Your task to perform on an android device: Open privacy settings Image 0: 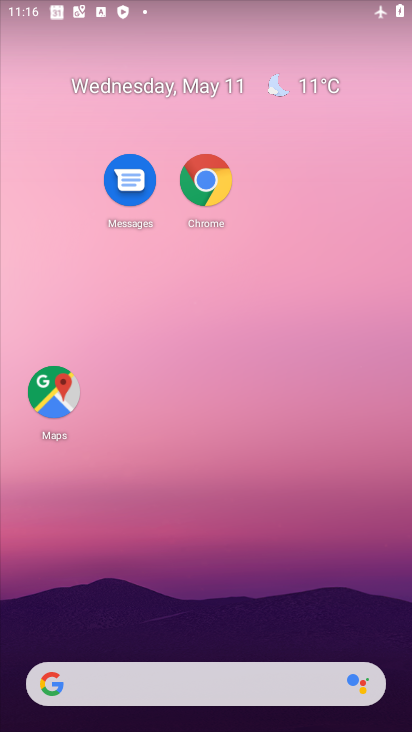
Step 0: drag from (258, 592) to (326, 138)
Your task to perform on an android device: Open privacy settings Image 1: 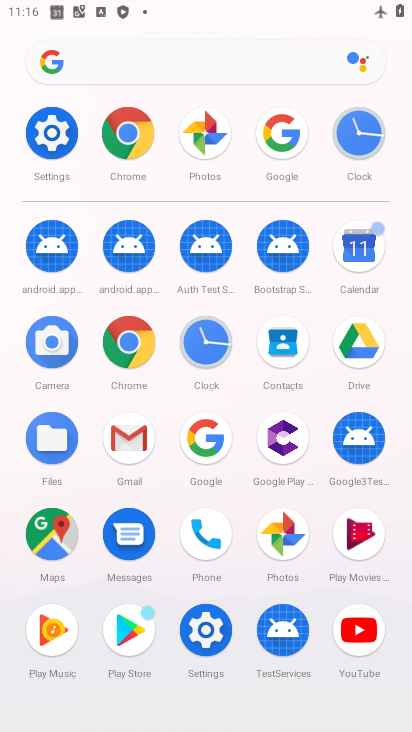
Step 1: click (49, 146)
Your task to perform on an android device: Open privacy settings Image 2: 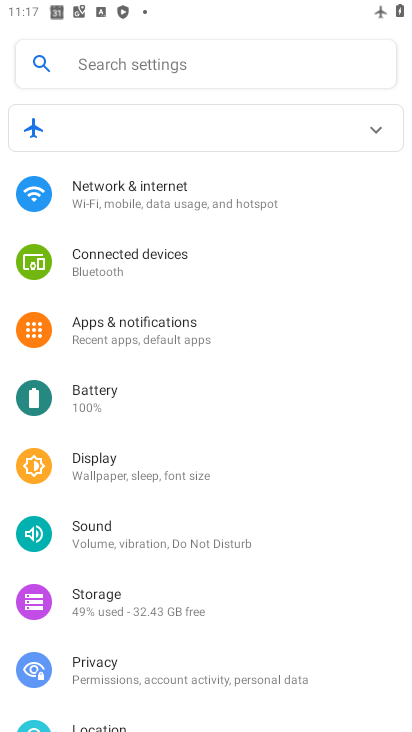
Step 2: click (179, 671)
Your task to perform on an android device: Open privacy settings Image 3: 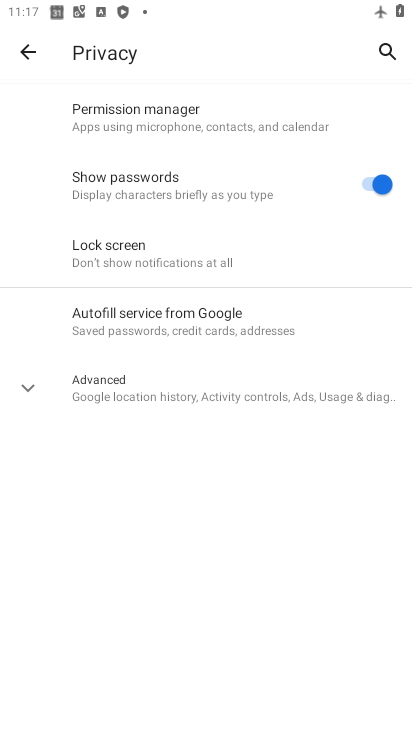
Step 3: task complete